Your task to perform on an android device: What's on the menu at Pizza Hut? Image 0: 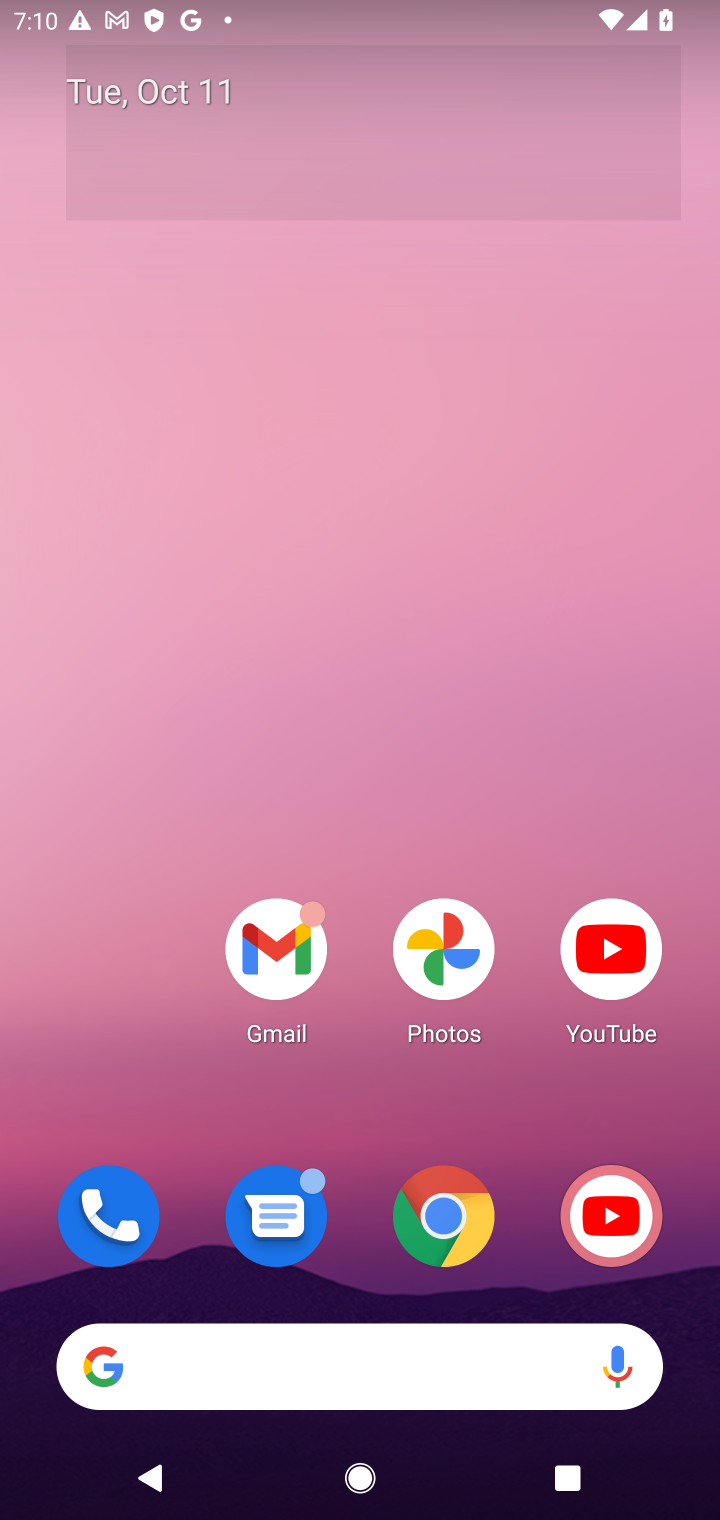
Step 0: click (416, 1227)
Your task to perform on an android device: What's on the menu at Pizza Hut? Image 1: 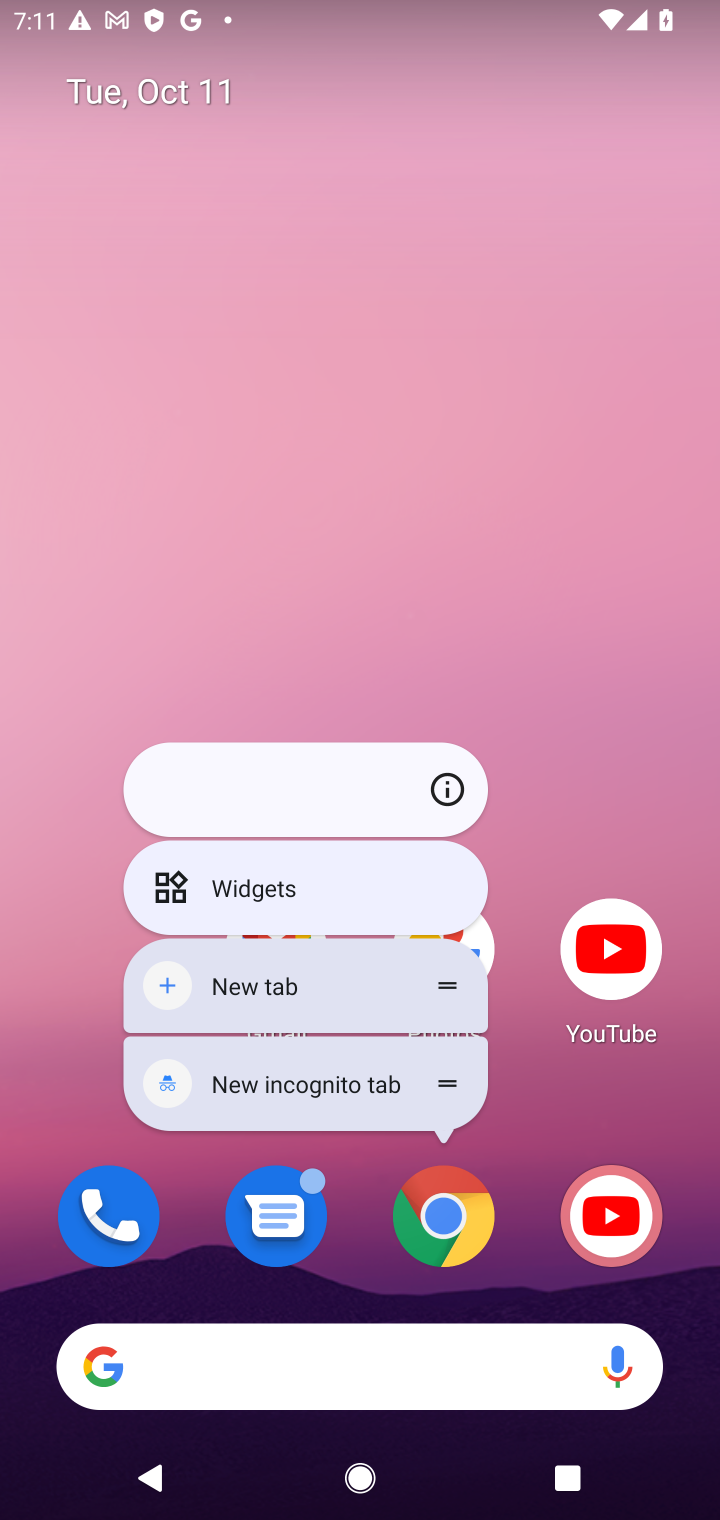
Step 1: click (416, 1227)
Your task to perform on an android device: What's on the menu at Pizza Hut? Image 2: 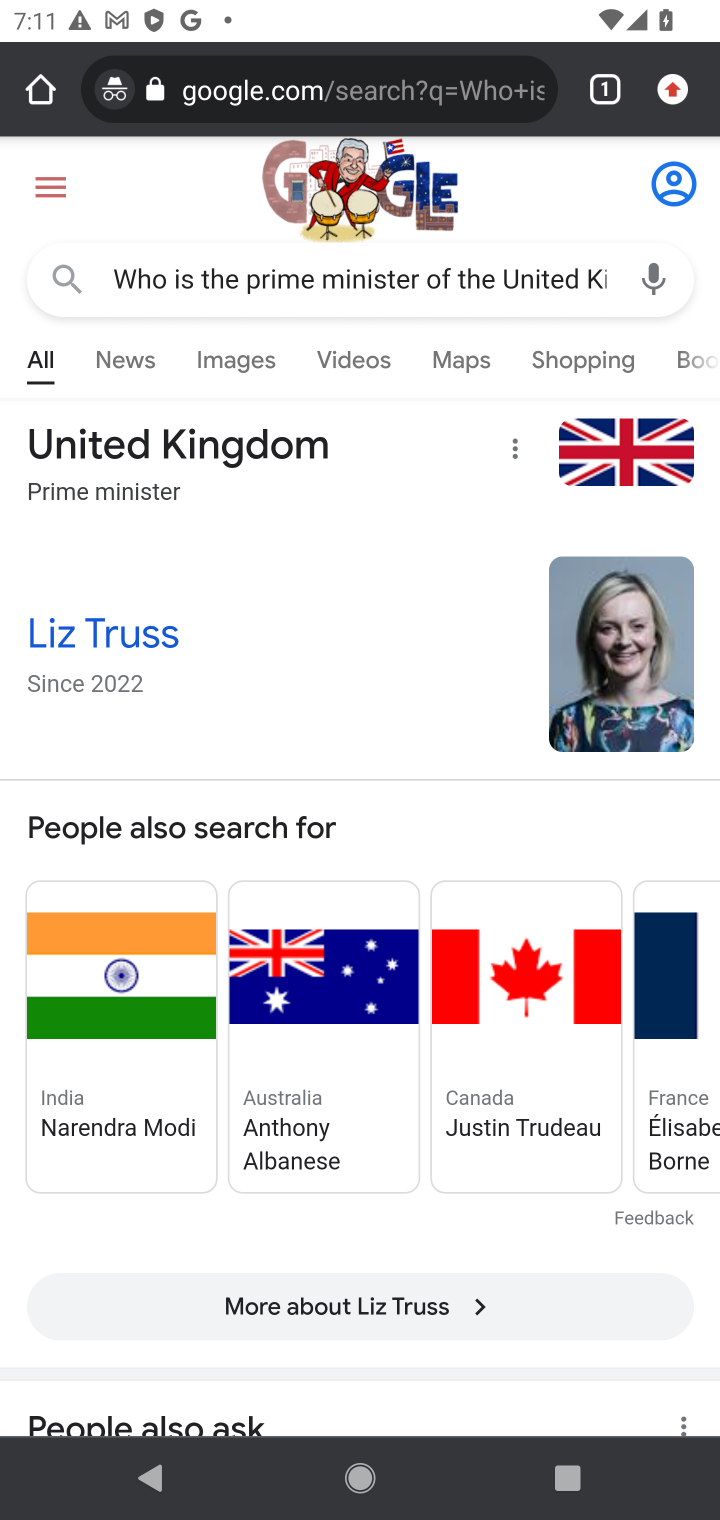
Step 2: click (429, 285)
Your task to perform on an android device: What's on the menu at Pizza Hut? Image 3: 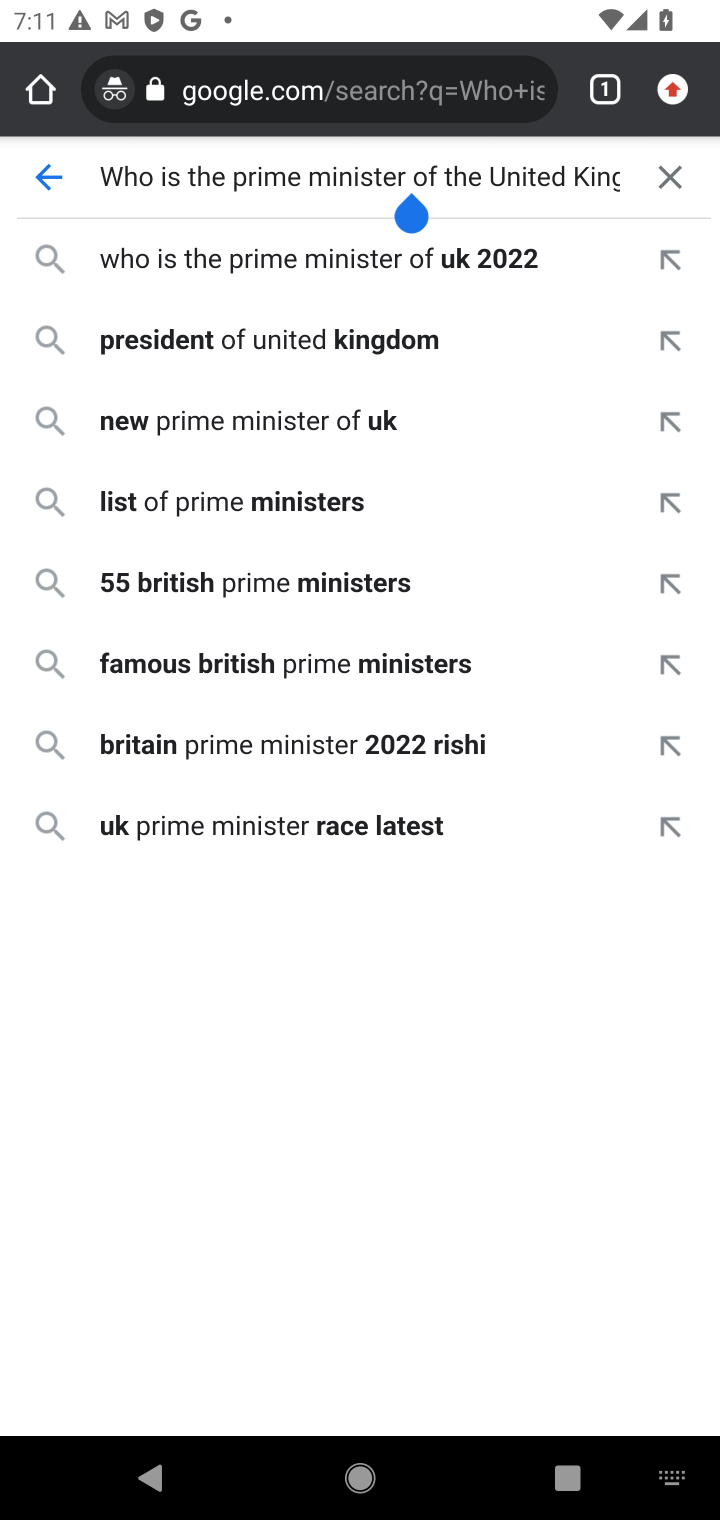
Step 3: click (660, 182)
Your task to perform on an android device: What's on the menu at Pizza Hut? Image 4: 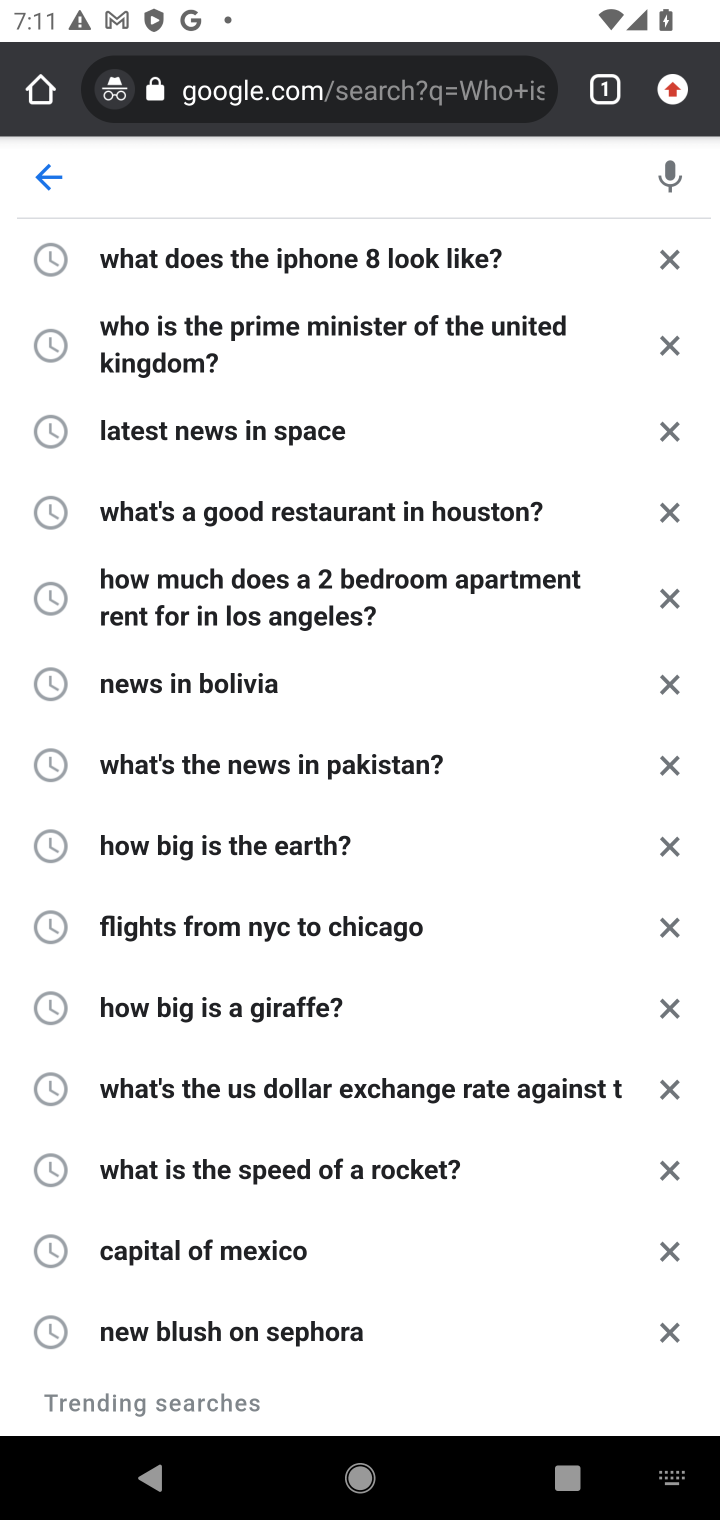
Step 4: type "What's on the menu at Pizza Hut?"
Your task to perform on an android device: What's on the menu at Pizza Hut? Image 5: 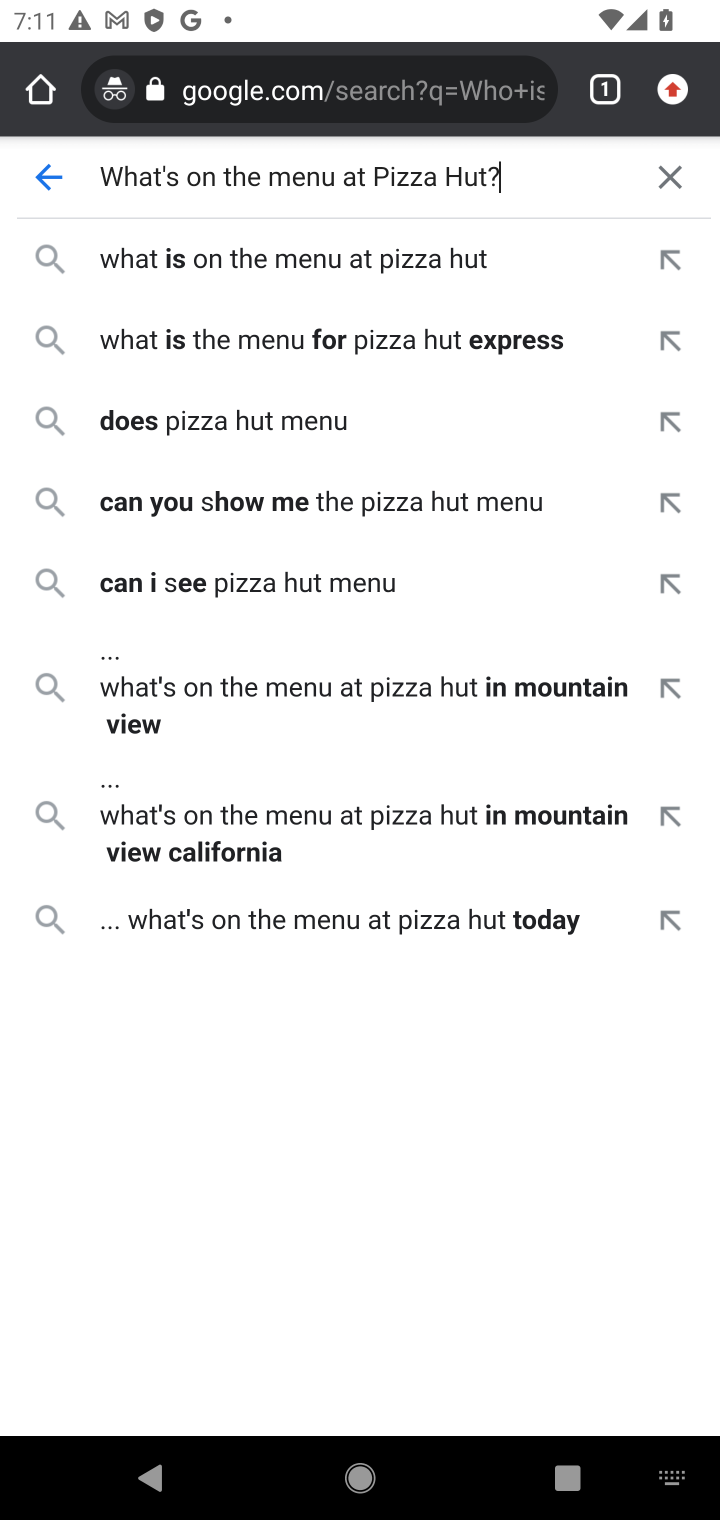
Step 5: press enter
Your task to perform on an android device: What's on the menu at Pizza Hut? Image 6: 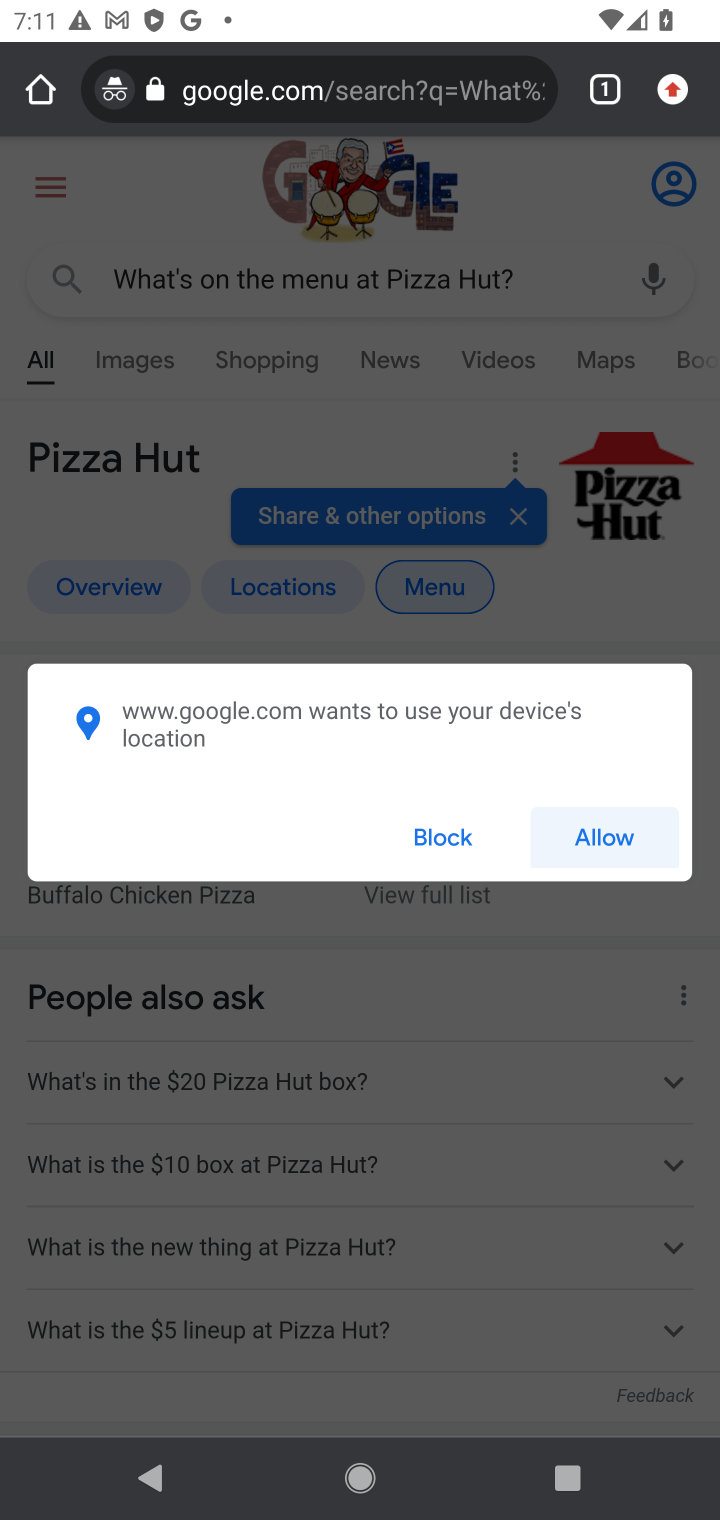
Step 6: click (579, 844)
Your task to perform on an android device: What's on the menu at Pizza Hut? Image 7: 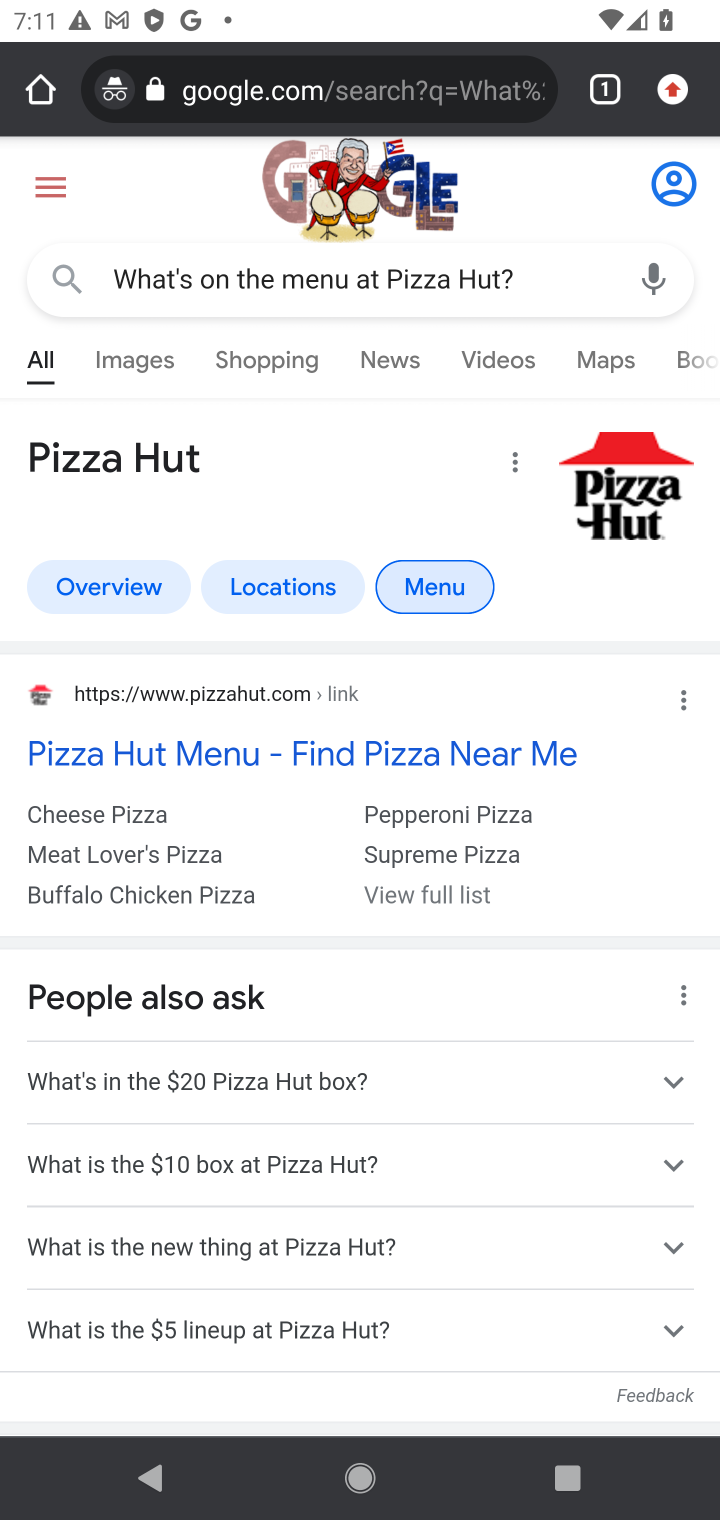
Step 7: task complete